Your task to perform on an android device: turn on sleep mode Image 0: 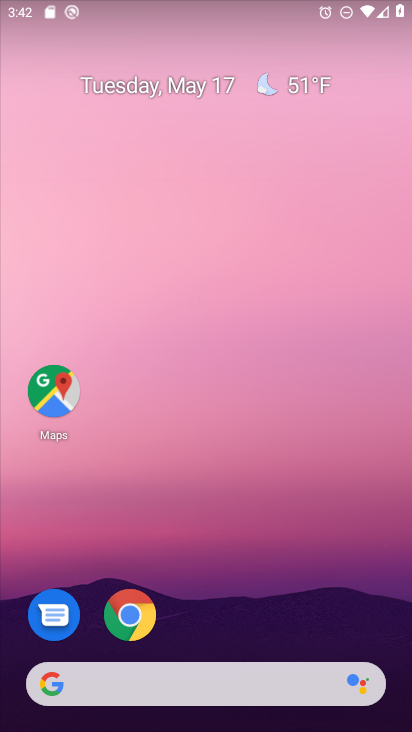
Step 0: drag from (210, 632) to (251, 109)
Your task to perform on an android device: turn on sleep mode Image 1: 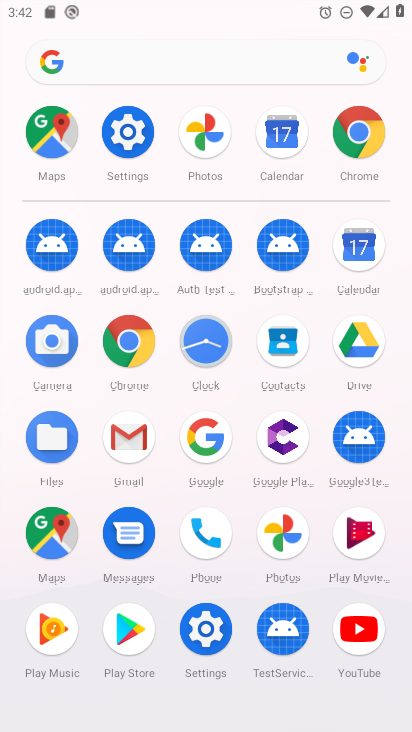
Step 1: click (208, 624)
Your task to perform on an android device: turn on sleep mode Image 2: 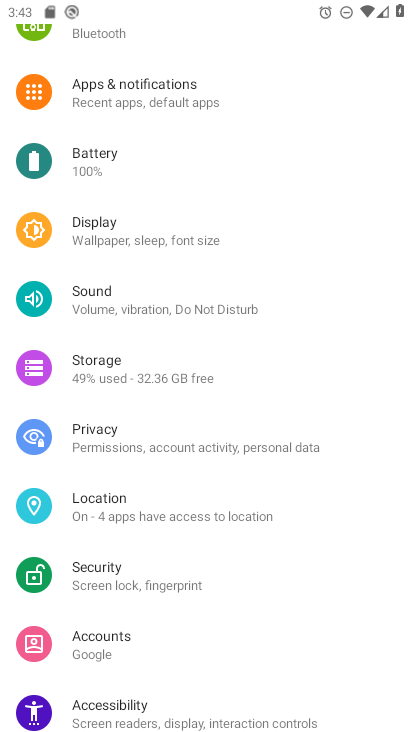
Step 2: click (130, 226)
Your task to perform on an android device: turn on sleep mode Image 3: 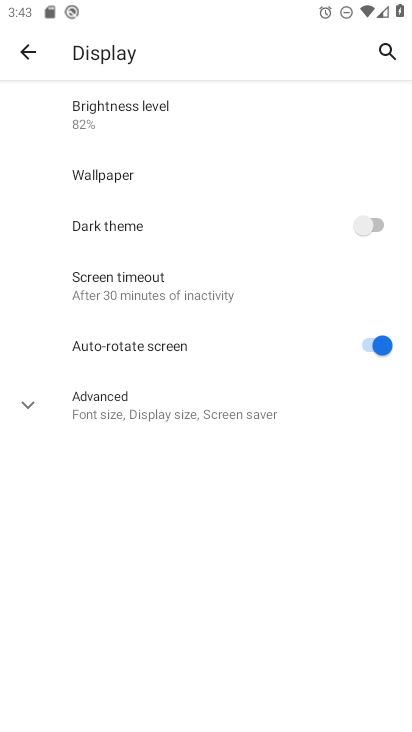
Step 3: click (46, 399)
Your task to perform on an android device: turn on sleep mode Image 4: 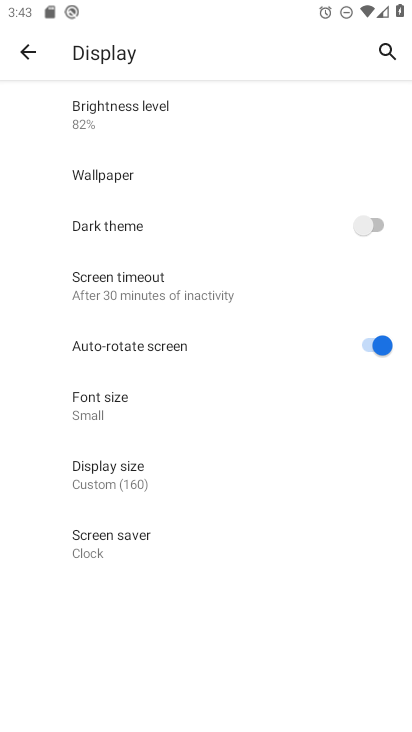
Step 4: task complete